Your task to perform on an android device: toggle notification dots Image 0: 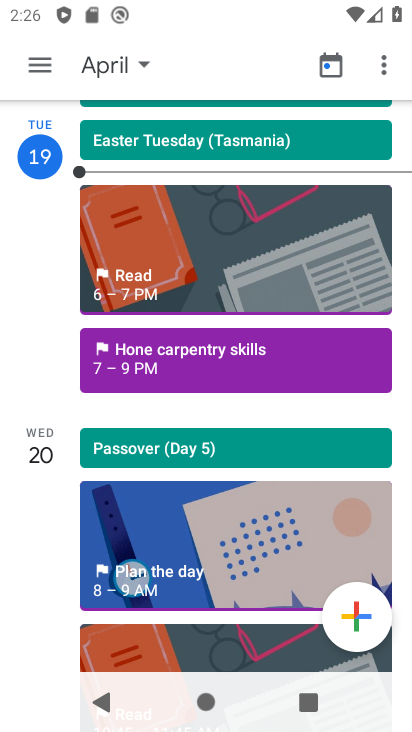
Step 0: press back button
Your task to perform on an android device: toggle notification dots Image 1: 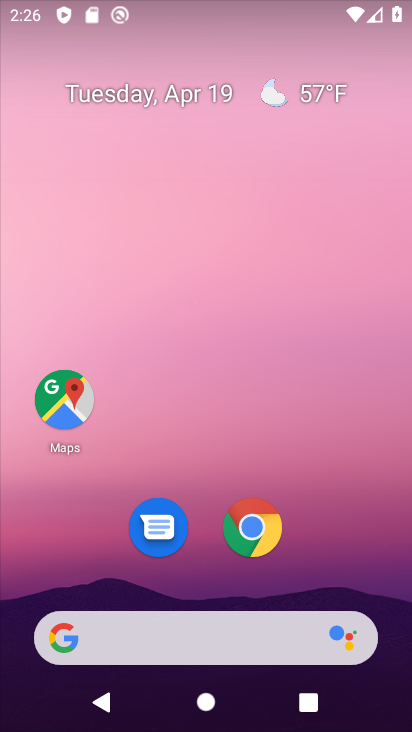
Step 1: drag from (326, 577) to (345, 19)
Your task to perform on an android device: toggle notification dots Image 2: 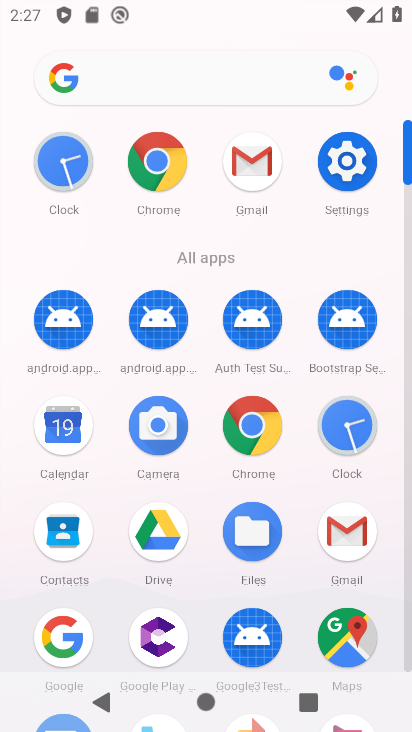
Step 2: click (334, 164)
Your task to perform on an android device: toggle notification dots Image 3: 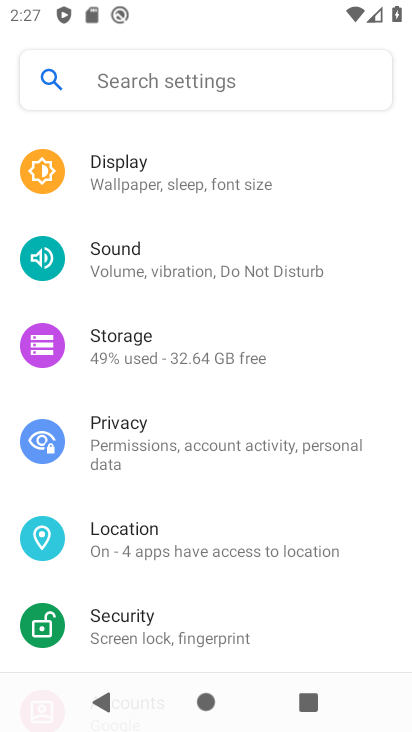
Step 3: drag from (173, 456) to (209, 541)
Your task to perform on an android device: toggle notification dots Image 4: 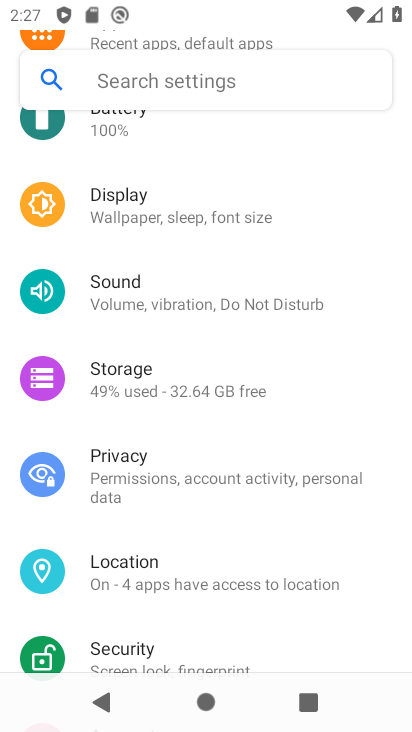
Step 4: drag from (190, 450) to (198, 525)
Your task to perform on an android device: toggle notification dots Image 5: 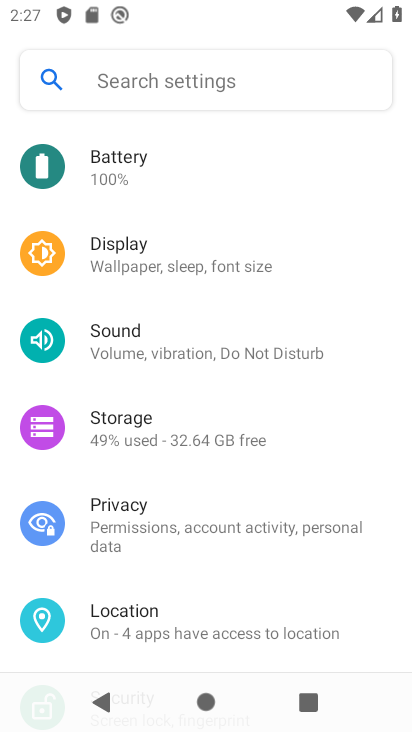
Step 5: drag from (196, 457) to (207, 551)
Your task to perform on an android device: toggle notification dots Image 6: 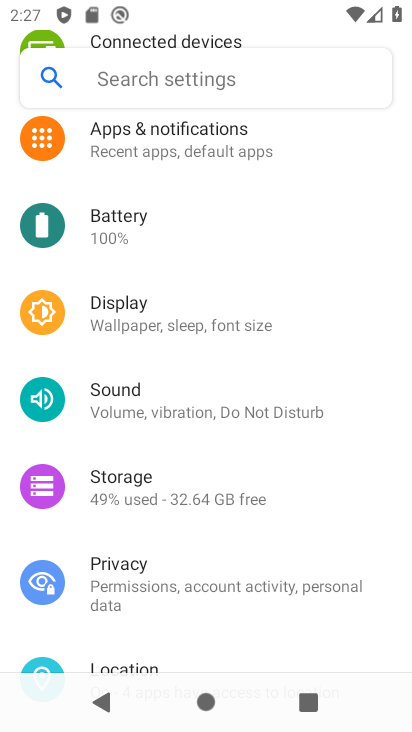
Step 6: click (243, 149)
Your task to perform on an android device: toggle notification dots Image 7: 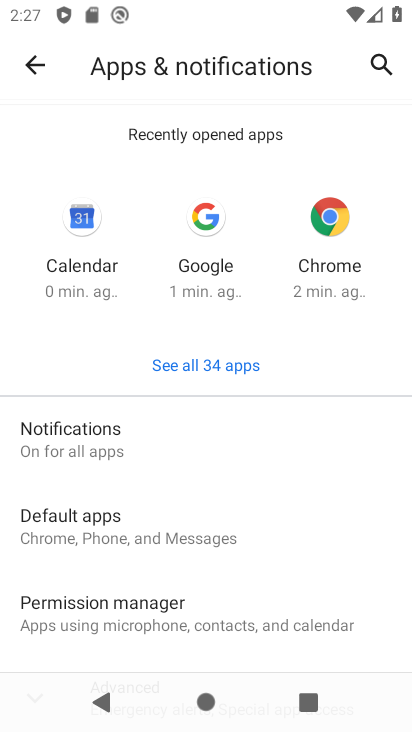
Step 7: click (115, 451)
Your task to perform on an android device: toggle notification dots Image 8: 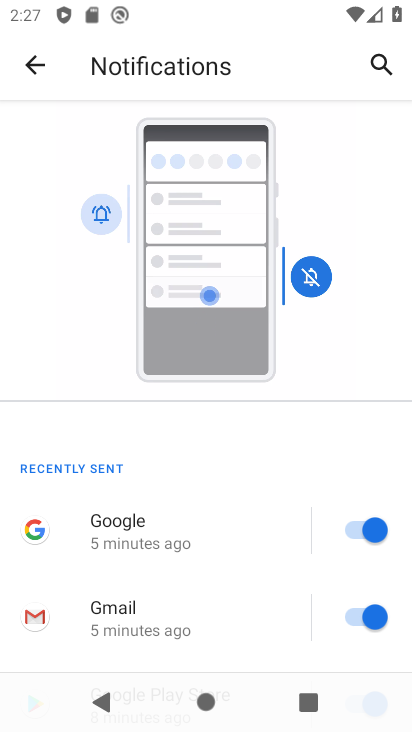
Step 8: drag from (217, 624) to (303, 287)
Your task to perform on an android device: toggle notification dots Image 9: 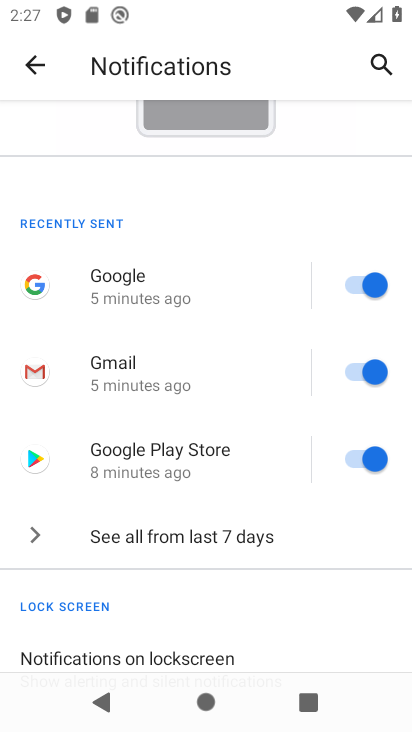
Step 9: drag from (296, 604) to (326, 222)
Your task to perform on an android device: toggle notification dots Image 10: 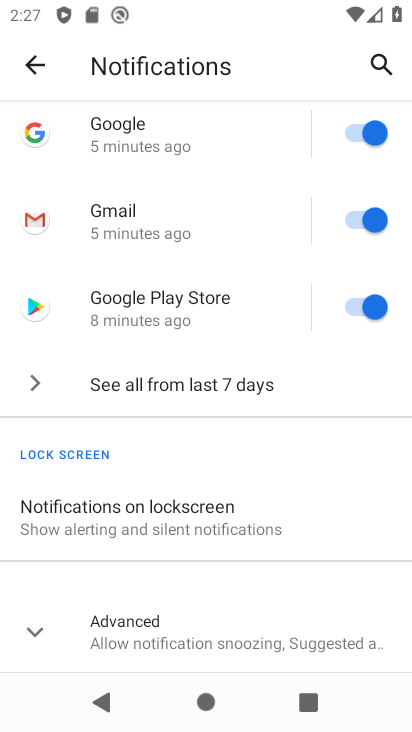
Step 10: click (284, 635)
Your task to perform on an android device: toggle notification dots Image 11: 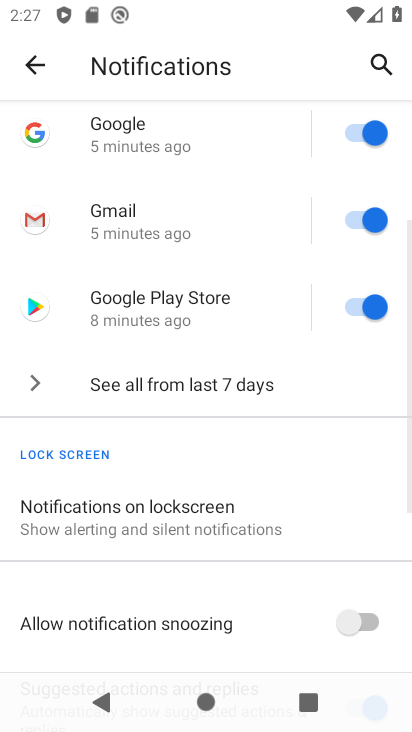
Step 11: drag from (291, 620) to (354, 263)
Your task to perform on an android device: toggle notification dots Image 12: 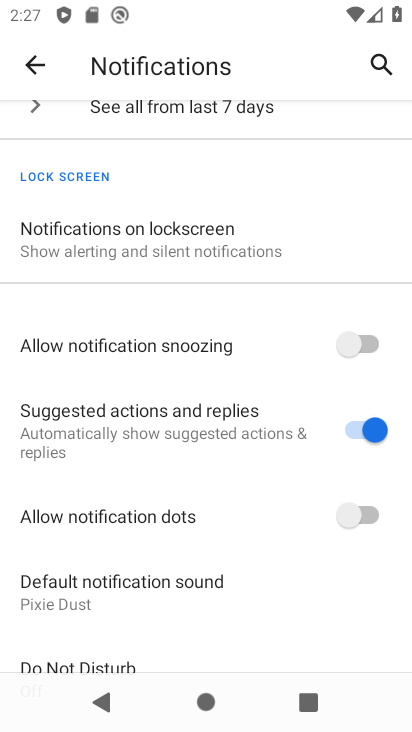
Step 12: click (372, 515)
Your task to perform on an android device: toggle notification dots Image 13: 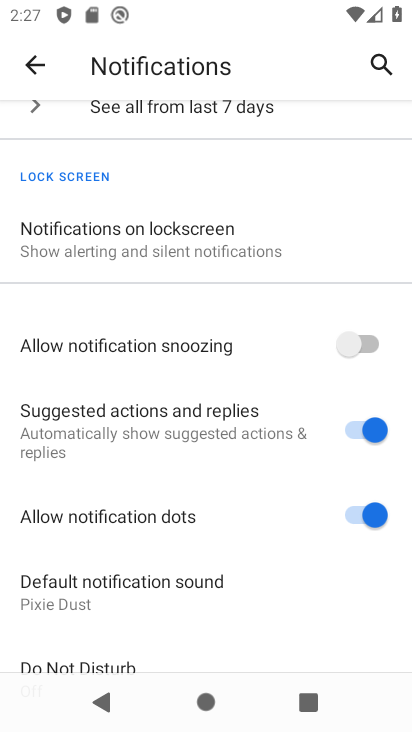
Step 13: task complete